Your task to perform on an android device: Show me productivity apps on the Play Store Image 0: 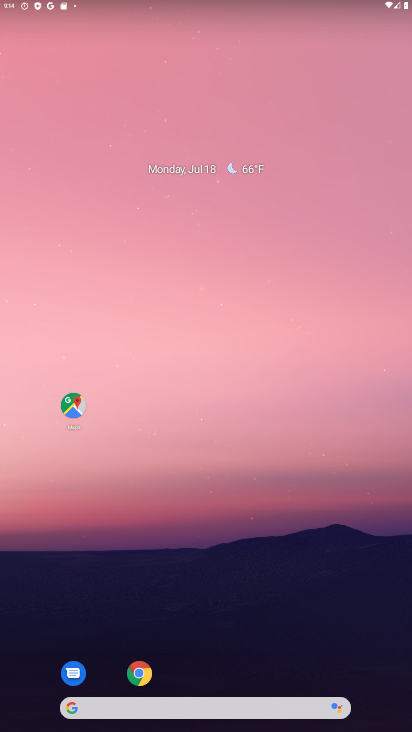
Step 0: drag from (197, 142) to (197, 81)
Your task to perform on an android device: Show me productivity apps on the Play Store Image 1: 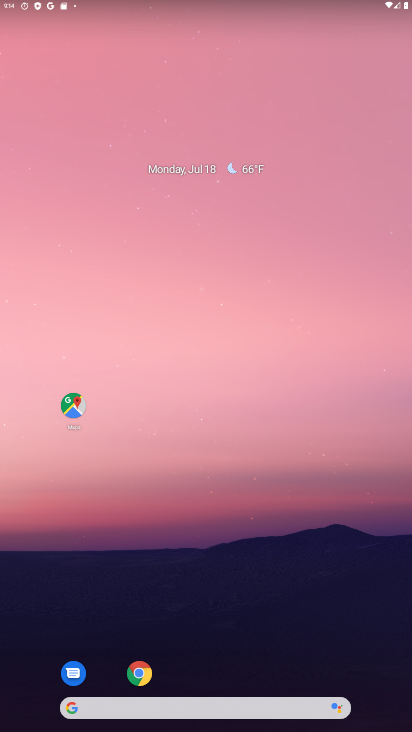
Step 1: drag from (195, 680) to (213, 127)
Your task to perform on an android device: Show me productivity apps on the Play Store Image 2: 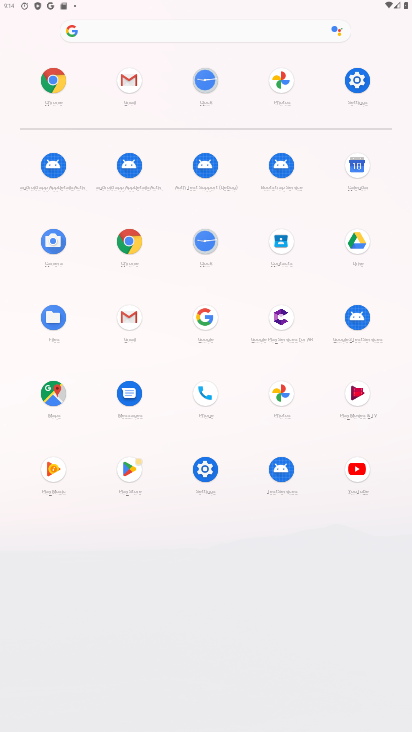
Step 2: click (127, 474)
Your task to perform on an android device: Show me productivity apps on the Play Store Image 3: 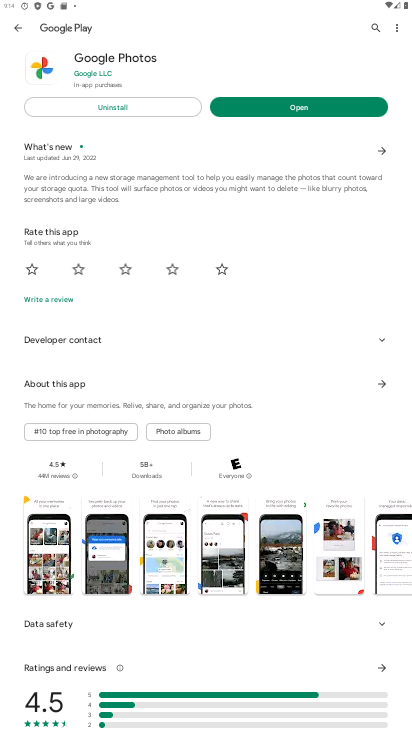
Step 3: press back button
Your task to perform on an android device: Show me productivity apps on the Play Store Image 4: 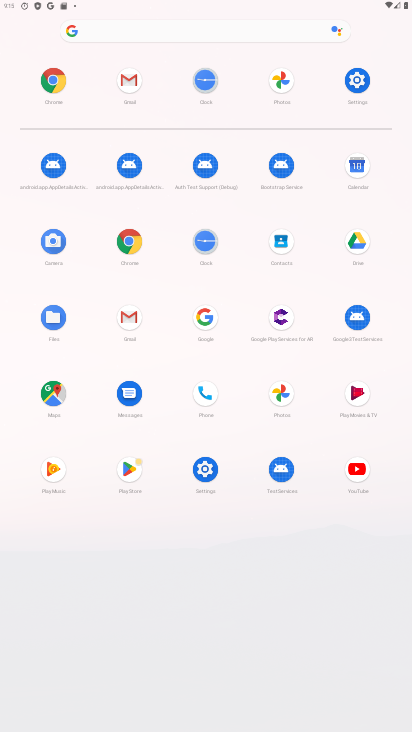
Step 4: click (132, 468)
Your task to perform on an android device: Show me productivity apps on the Play Store Image 5: 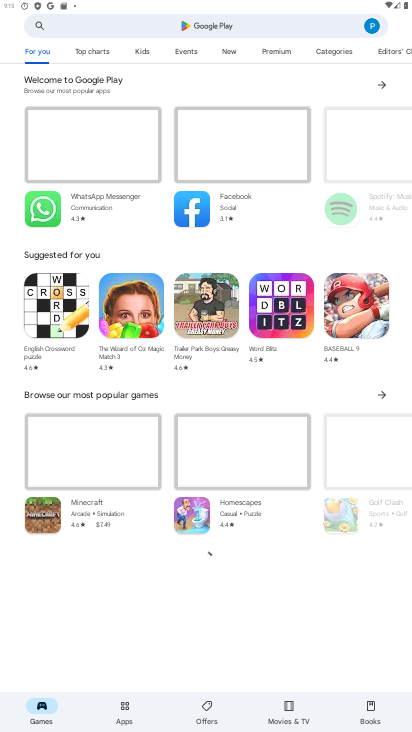
Step 5: click (130, 716)
Your task to perform on an android device: Show me productivity apps on the Play Store Image 6: 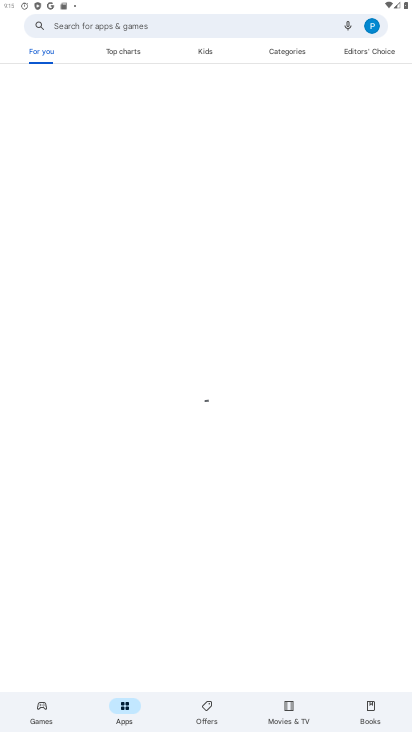
Step 6: click (295, 54)
Your task to perform on an android device: Show me productivity apps on the Play Store Image 7: 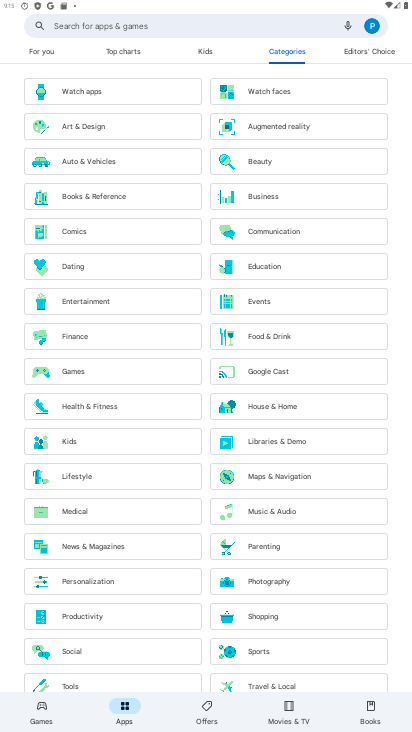
Step 7: click (89, 614)
Your task to perform on an android device: Show me productivity apps on the Play Store Image 8: 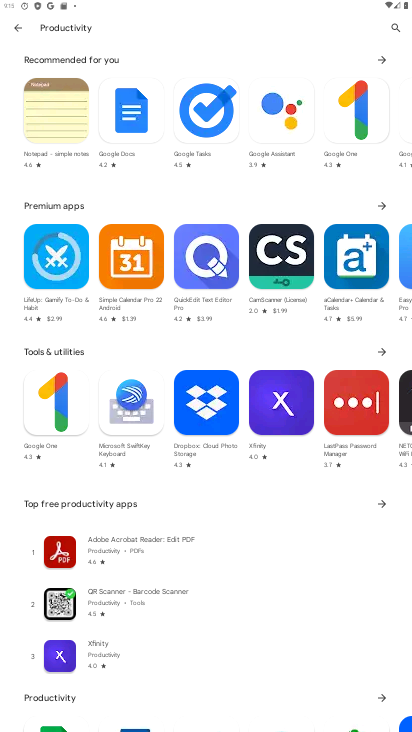
Step 8: task complete